Your task to perform on an android device: Go to sound settings Image 0: 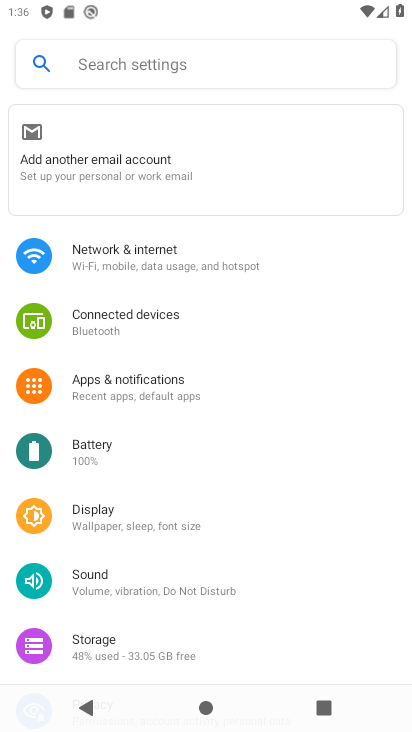
Step 0: click (183, 596)
Your task to perform on an android device: Go to sound settings Image 1: 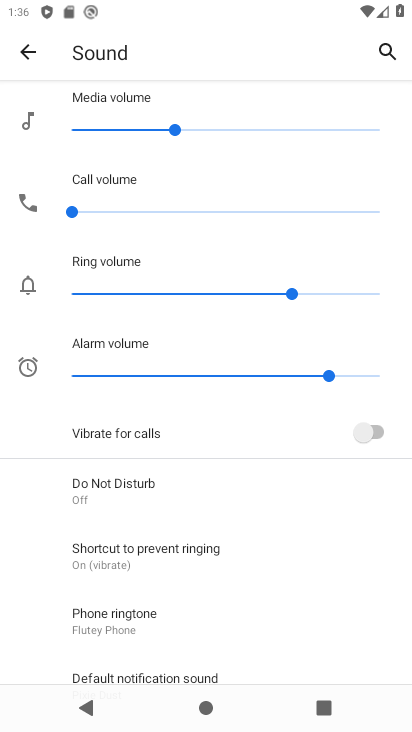
Step 1: task complete